Your task to perform on an android device: make emails show in primary in the gmail app Image 0: 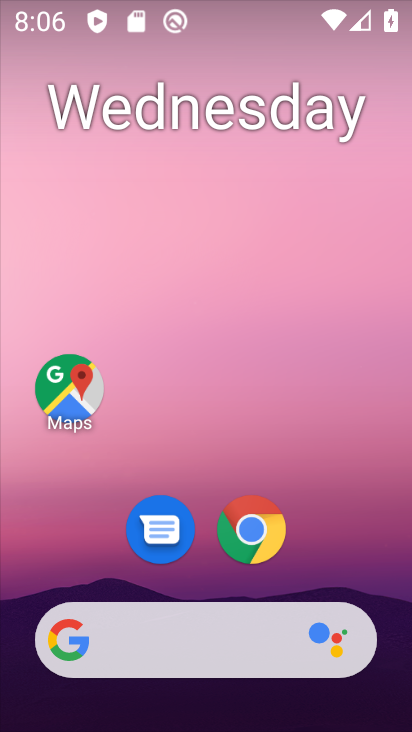
Step 0: drag from (140, 590) to (170, 53)
Your task to perform on an android device: make emails show in primary in the gmail app Image 1: 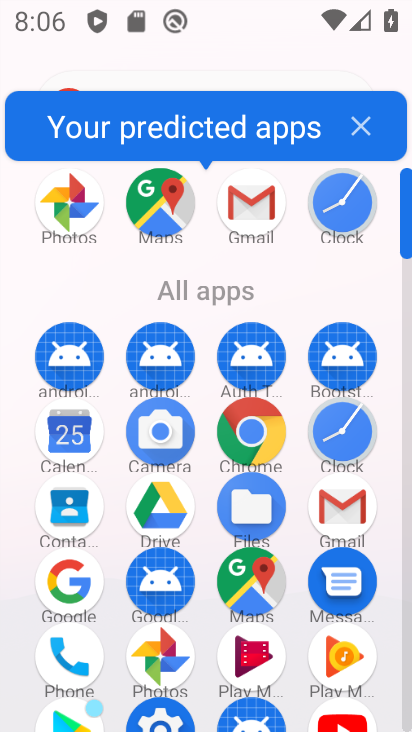
Step 1: click (336, 499)
Your task to perform on an android device: make emails show in primary in the gmail app Image 2: 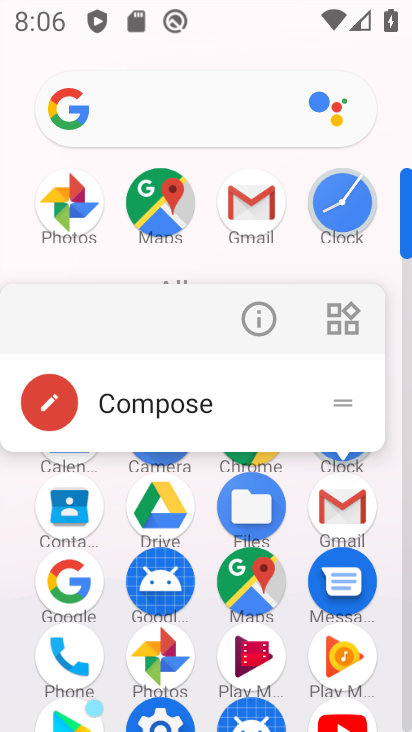
Step 2: click (336, 517)
Your task to perform on an android device: make emails show in primary in the gmail app Image 3: 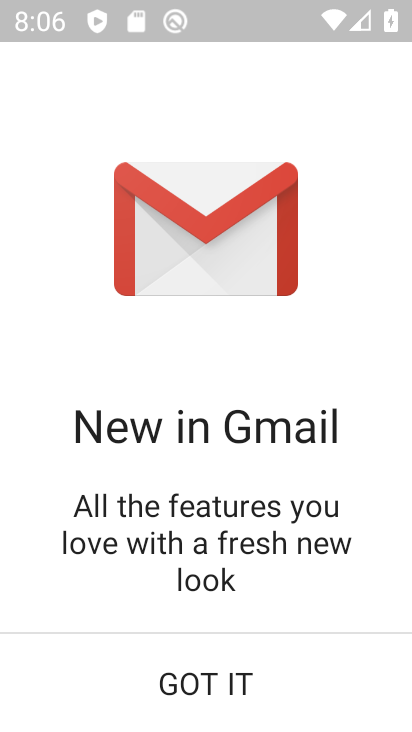
Step 3: click (125, 689)
Your task to perform on an android device: make emails show in primary in the gmail app Image 4: 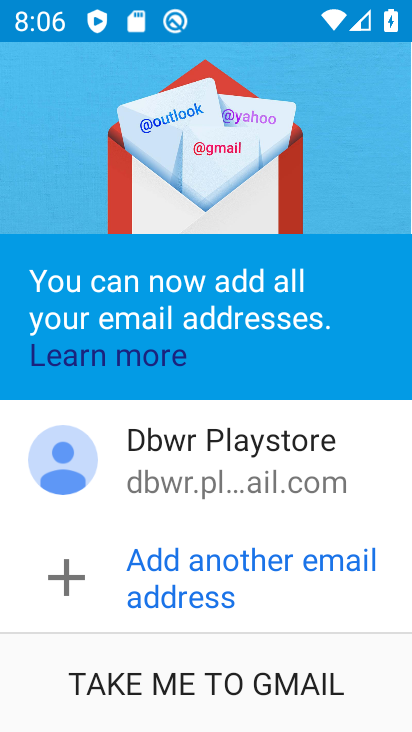
Step 4: click (276, 664)
Your task to perform on an android device: make emails show in primary in the gmail app Image 5: 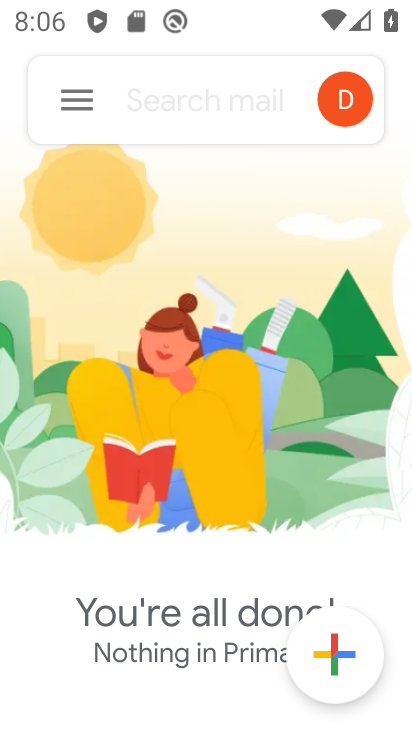
Step 5: click (63, 94)
Your task to perform on an android device: make emails show in primary in the gmail app Image 6: 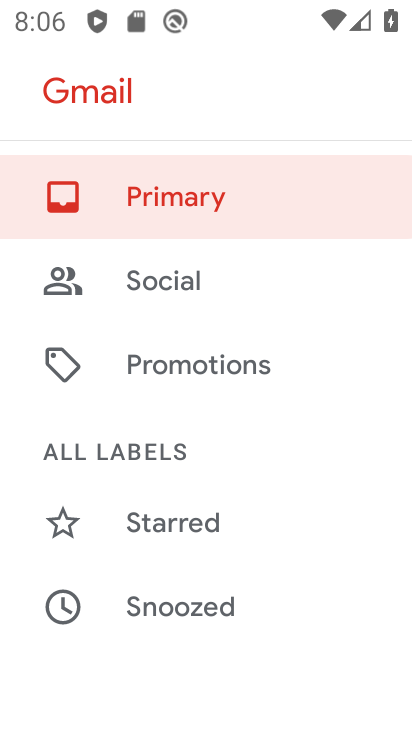
Step 6: drag from (202, 585) to (271, 50)
Your task to perform on an android device: make emails show in primary in the gmail app Image 7: 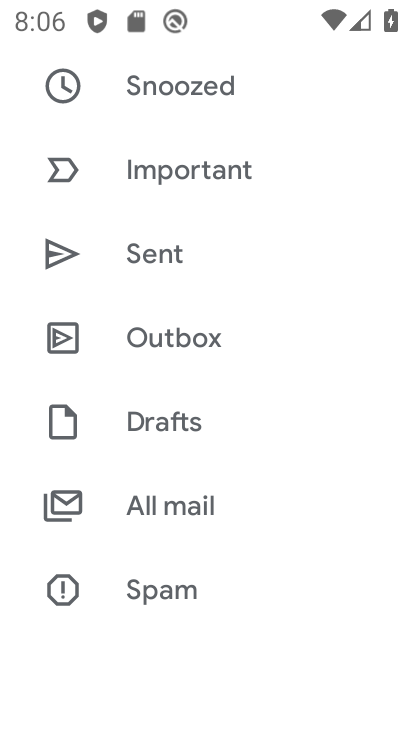
Step 7: drag from (208, 613) to (194, 110)
Your task to perform on an android device: make emails show in primary in the gmail app Image 8: 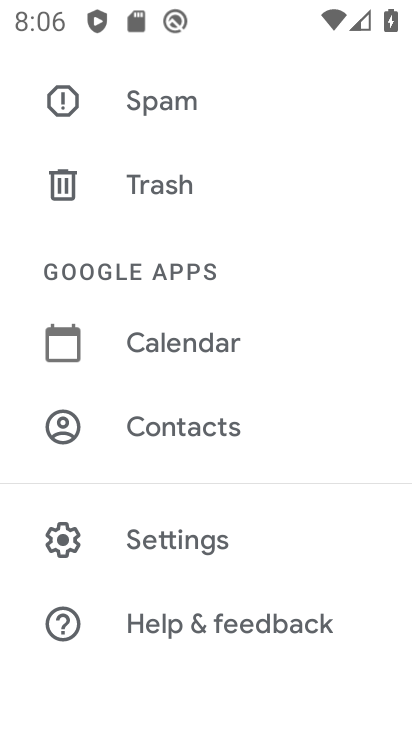
Step 8: click (169, 552)
Your task to perform on an android device: make emails show in primary in the gmail app Image 9: 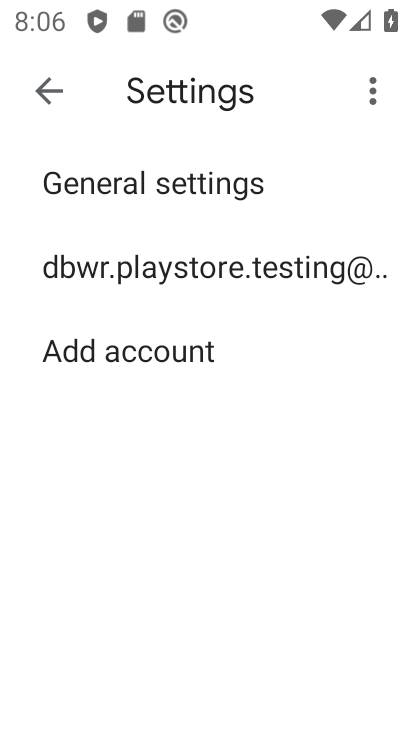
Step 9: click (91, 261)
Your task to perform on an android device: make emails show in primary in the gmail app Image 10: 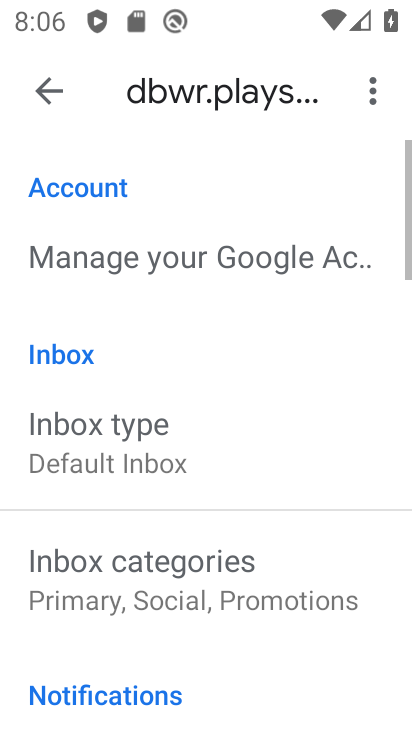
Step 10: click (74, 475)
Your task to perform on an android device: make emails show in primary in the gmail app Image 11: 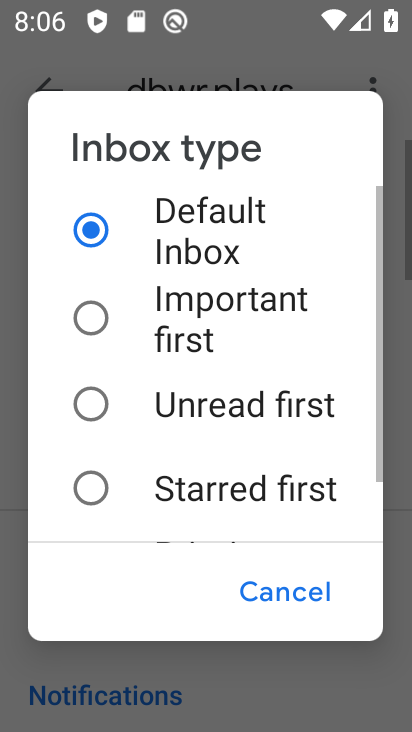
Step 11: click (162, 254)
Your task to perform on an android device: make emails show in primary in the gmail app Image 12: 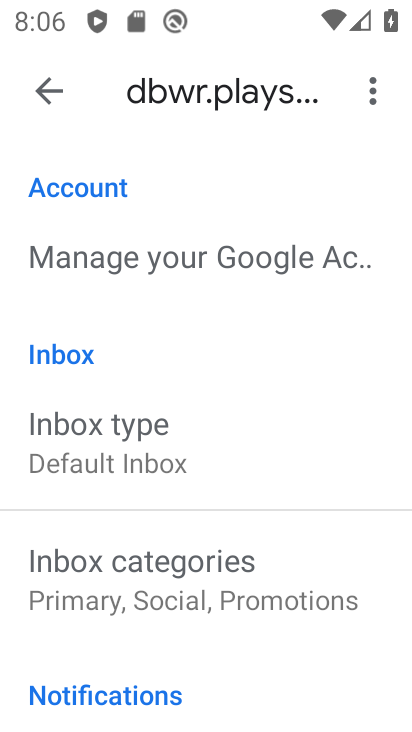
Step 12: task complete